Your task to perform on an android device: What's the price of the Sony TV? Image 0: 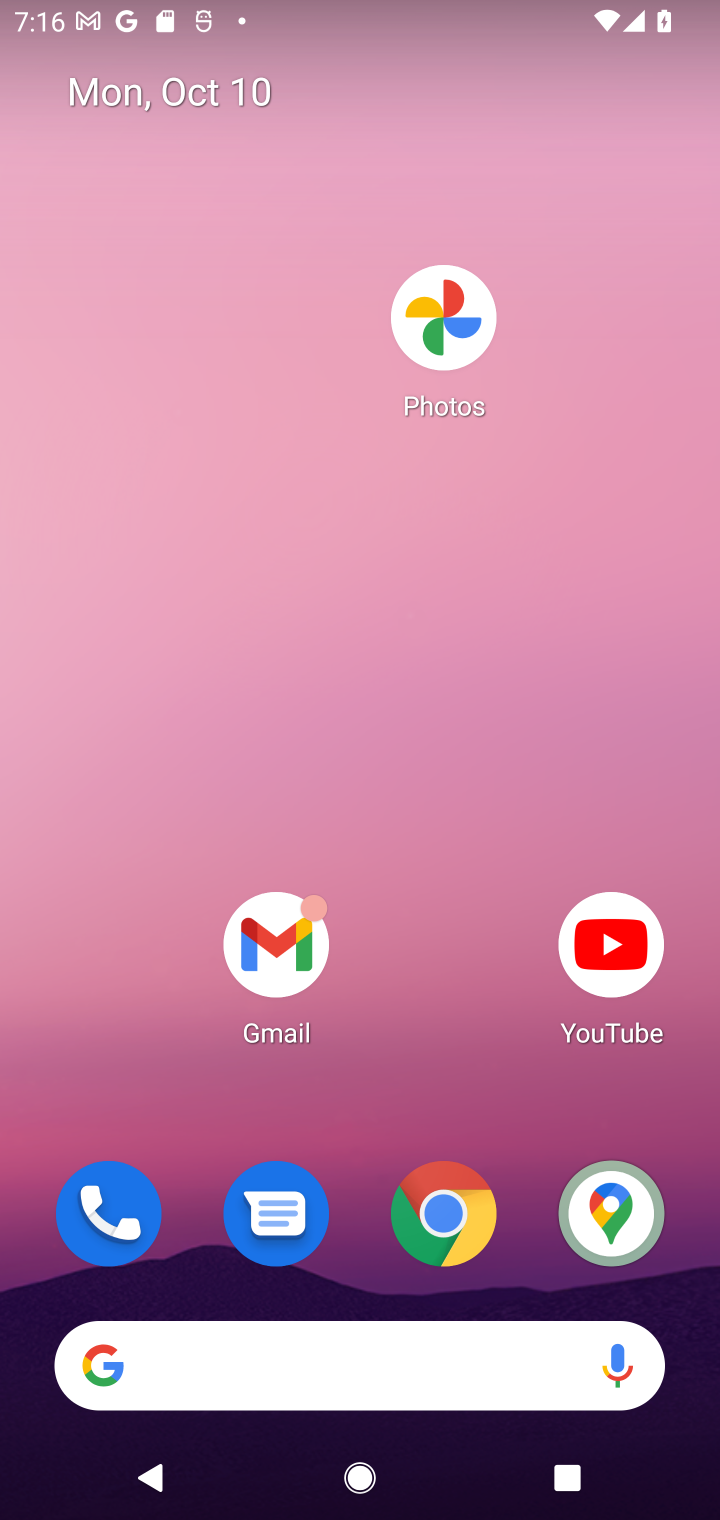
Step 0: click (395, 1356)
Your task to perform on an android device: What's the price of the Sony TV? Image 1: 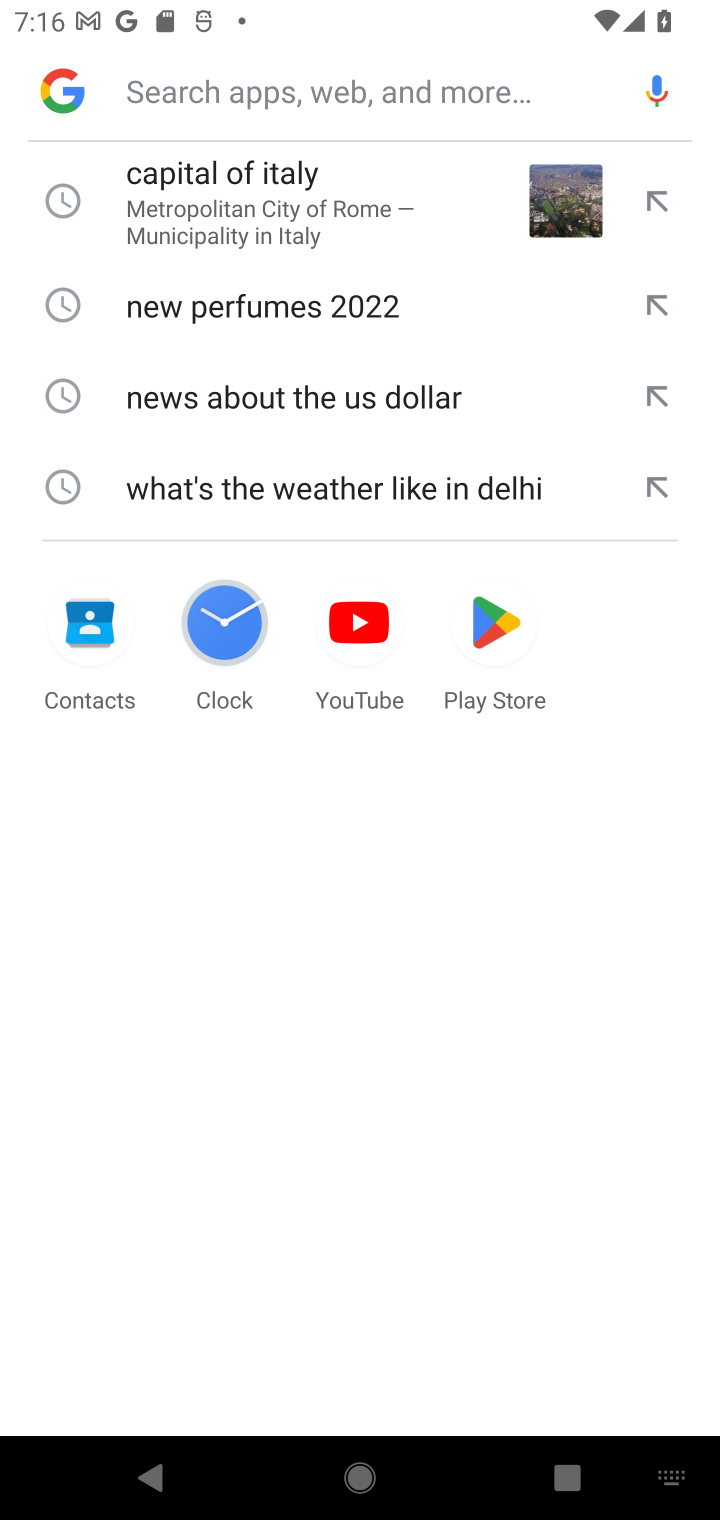
Step 1: type "price of the Sony TV"
Your task to perform on an android device: What's the price of the Sony TV? Image 2: 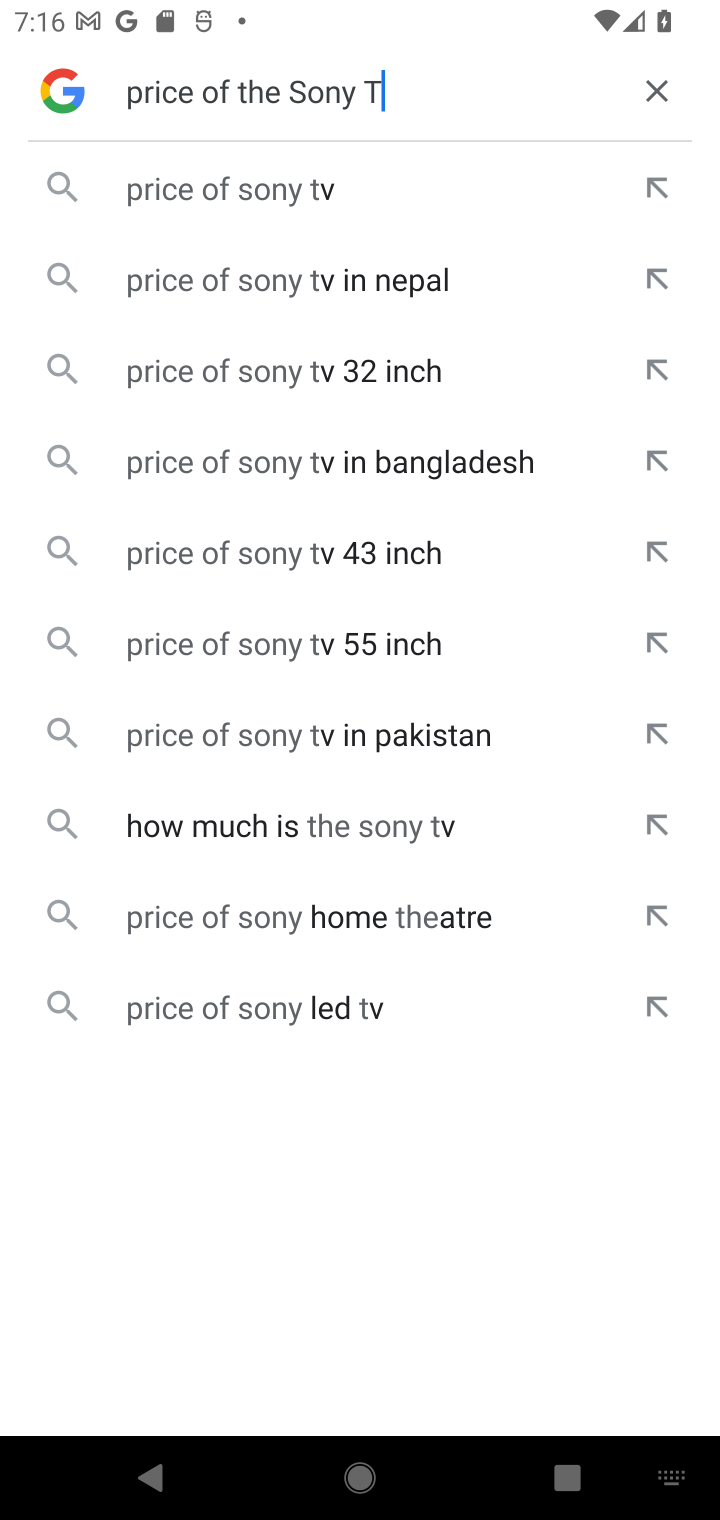
Step 2: type ""
Your task to perform on an android device: What's the price of the Sony TV? Image 3: 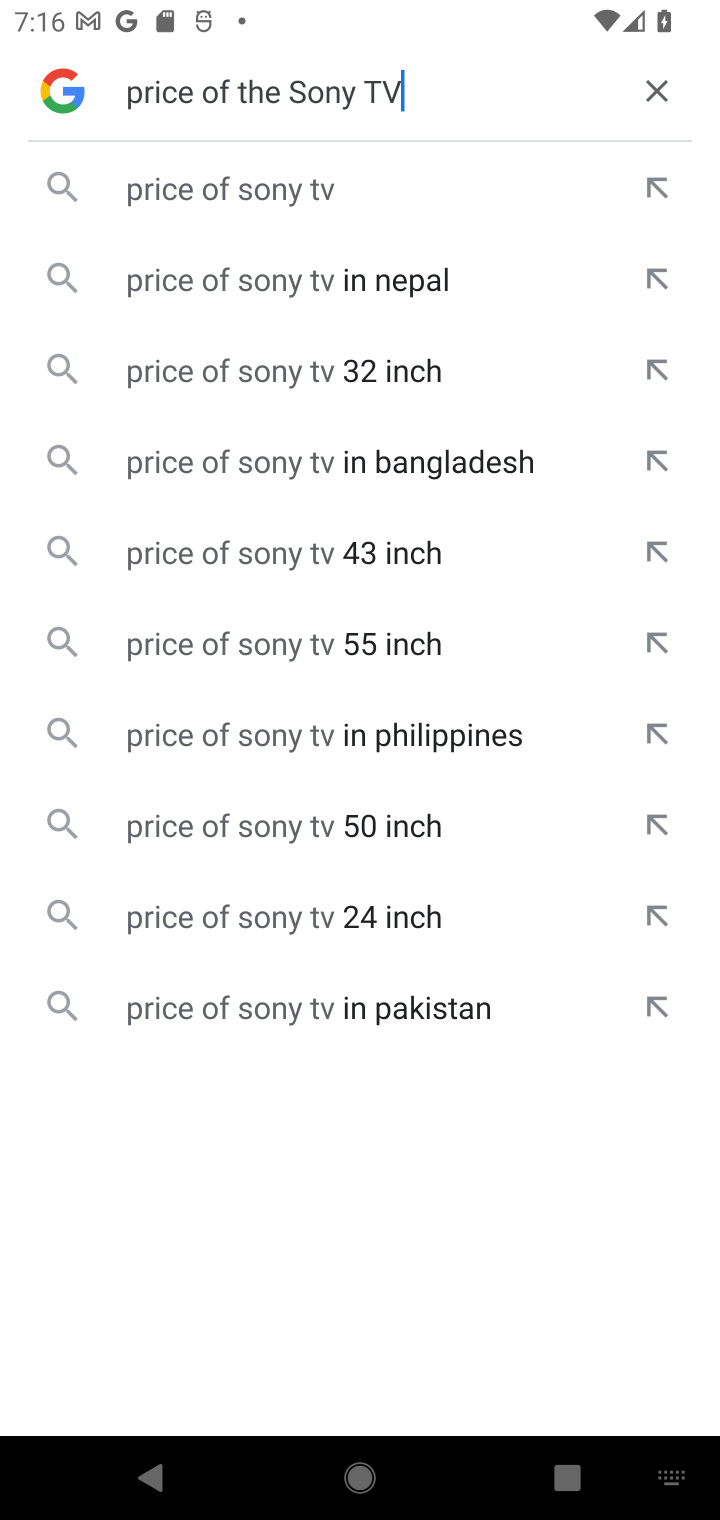
Step 3: click (287, 185)
Your task to perform on an android device: What's the price of the Sony TV? Image 4: 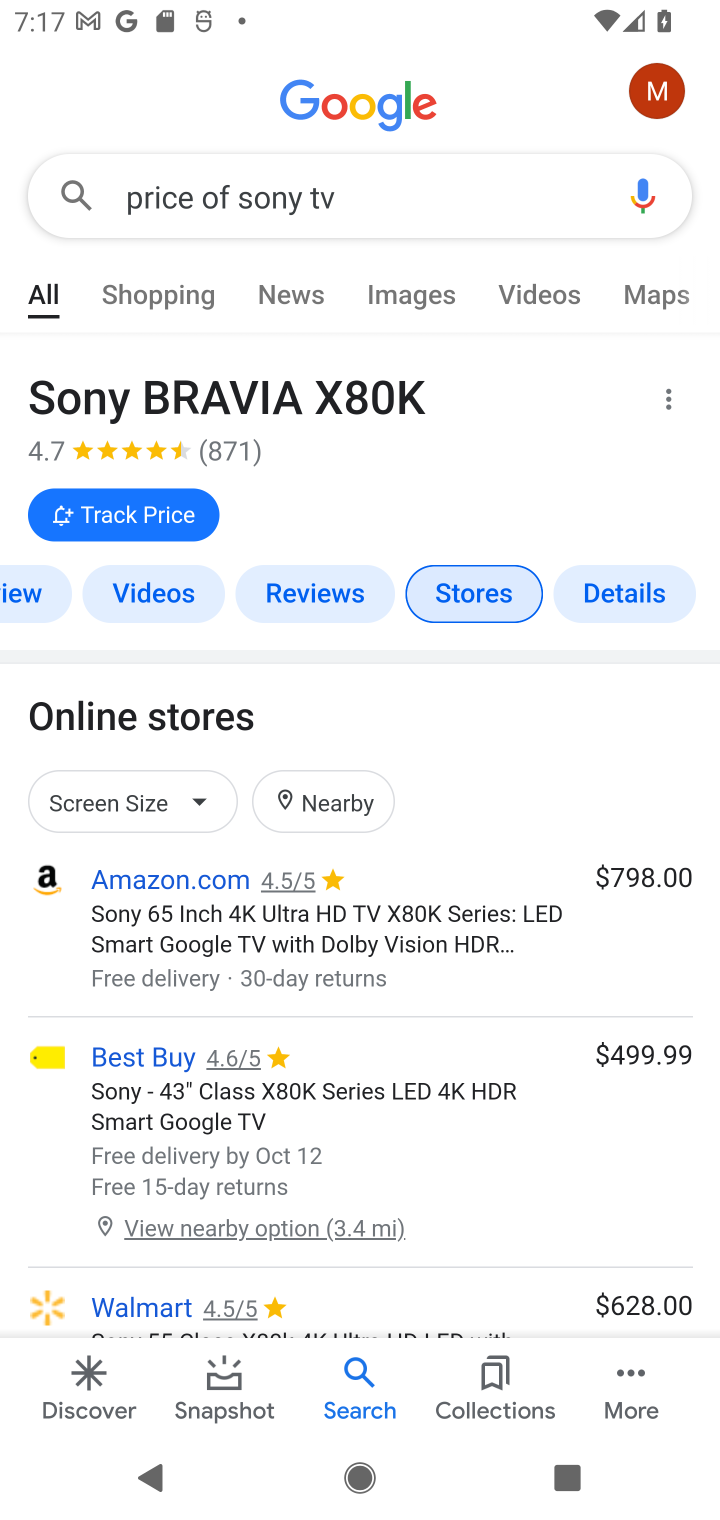
Step 4: task complete